Your task to perform on an android device: move an email to a new category in the gmail app Image 0: 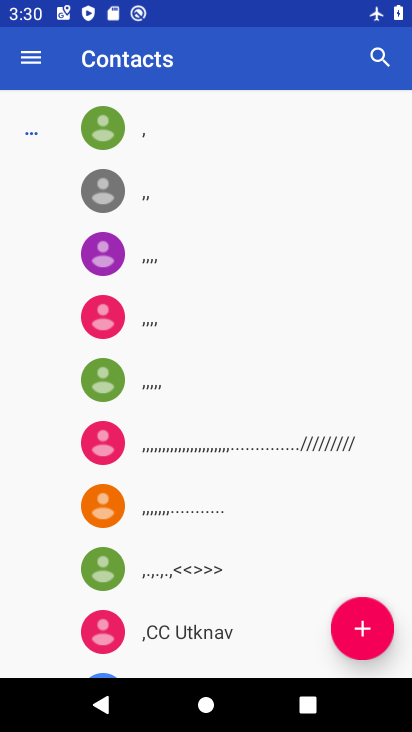
Step 0: press home button
Your task to perform on an android device: move an email to a new category in the gmail app Image 1: 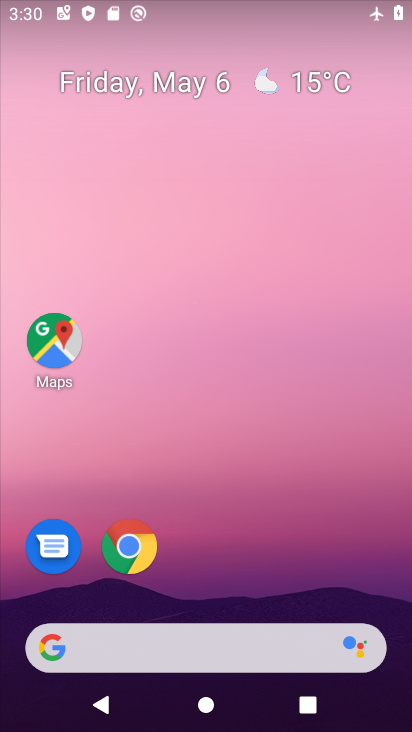
Step 1: drag from (229, 548) to (280, 73)
Your task to perform on an android device: move an email to a new category in the gmail app Image 2: 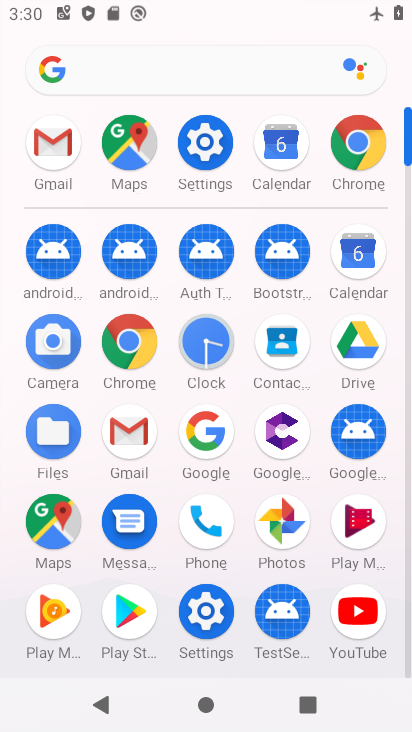
Step 2: click (60, 154)
Your task to perform on an android device: move an email to a new category in the gmail app Image 3: 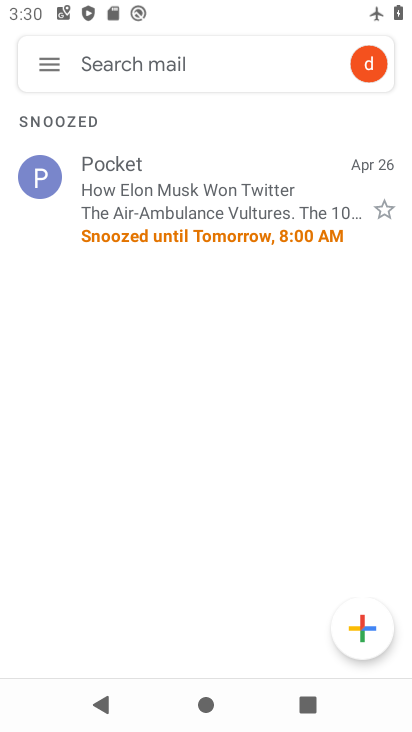
Step 3: click (120, 172)
Your task to perform on an android device: move an email to a new category in the gmail app Image 4: 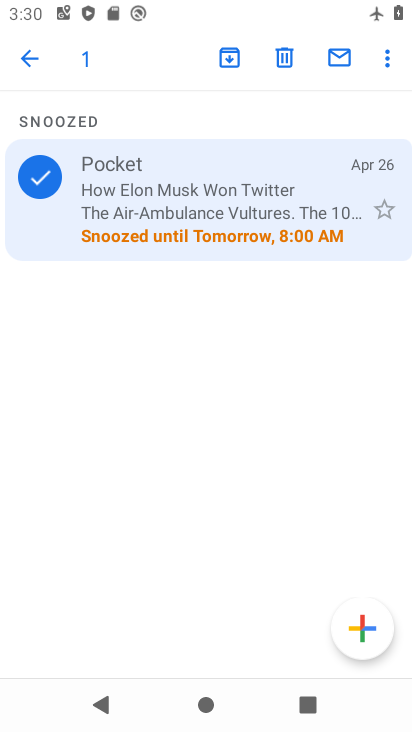
Step 4: click (391, 58)
Your task to perform on an android device: move an email to a new category in the gmail app Image 5: 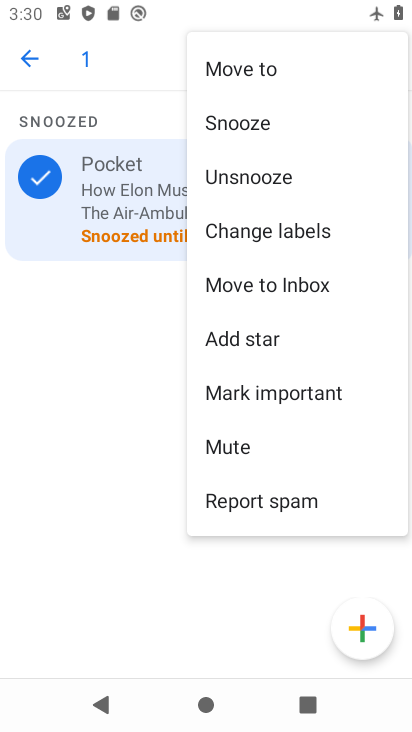
Step 5: click (328, 77)
Your task to perform on an android device: move an email to a new category in the gmail app Image 6: 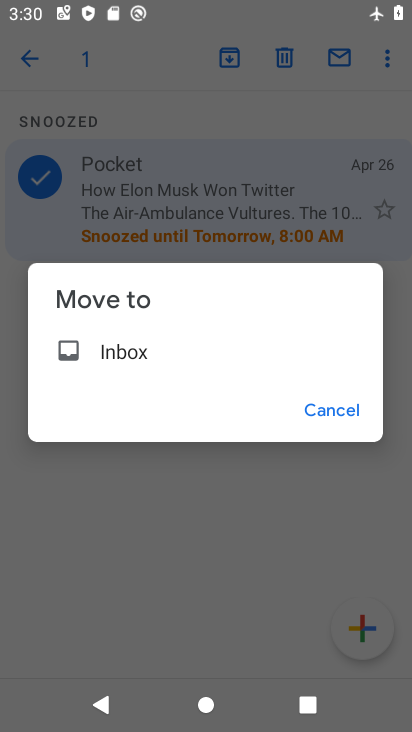
Step 6: click (307, 388)
Your task to perform on an android device: move an email to a new category in the gmail app Image 7: 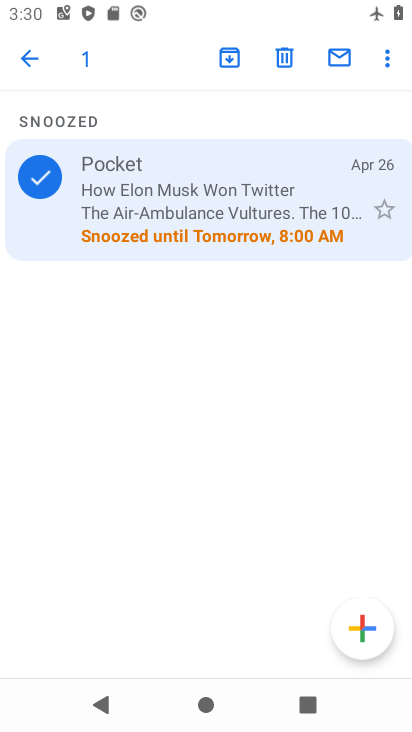
Step 7: click (292, 359)
Your task to perform on an android device: move an email to a new category in the gmail app Image 8: 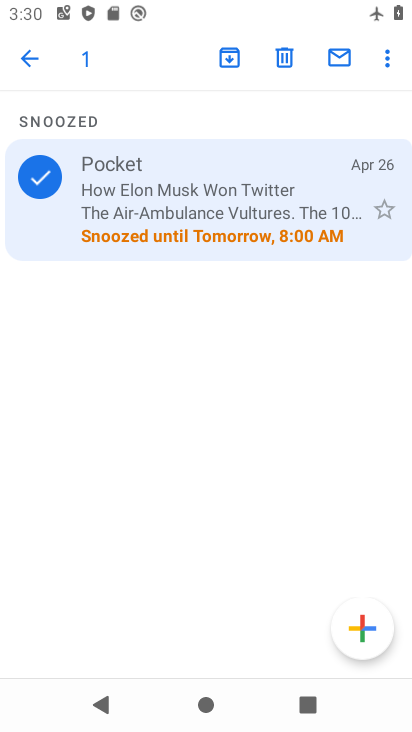
Step 8: click (385, 59)
Your task to perform on an android device: move an email to a new category in the gmail app Image 9: 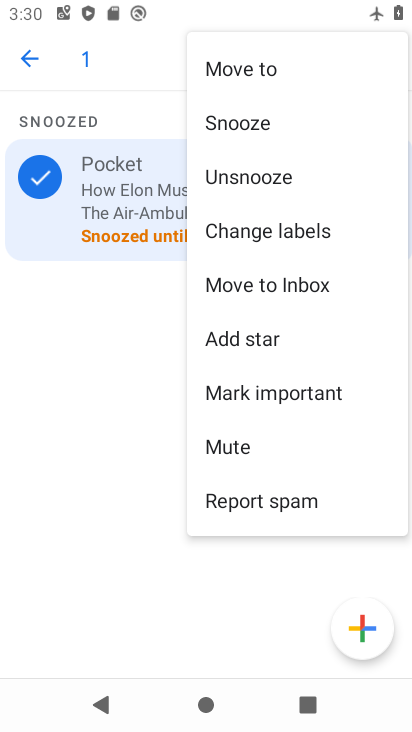
Step 9: click (353, 65)
Your task to perform on an android device: move an email to a new category in the gmail app Image 10: 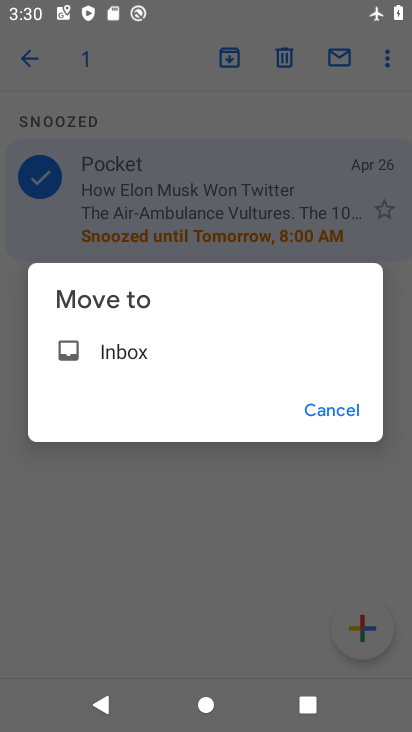
Step 10: click (107, 337)
Your task to perform on an android device: move an email to a new category in the gmail app Image 11: 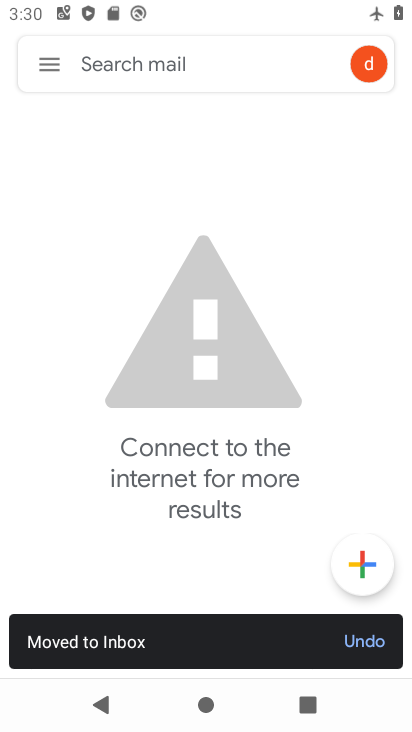
Step 11: task complete